Your task to perform on an android device: remove spam from my inbox in the gmail app Image 0: 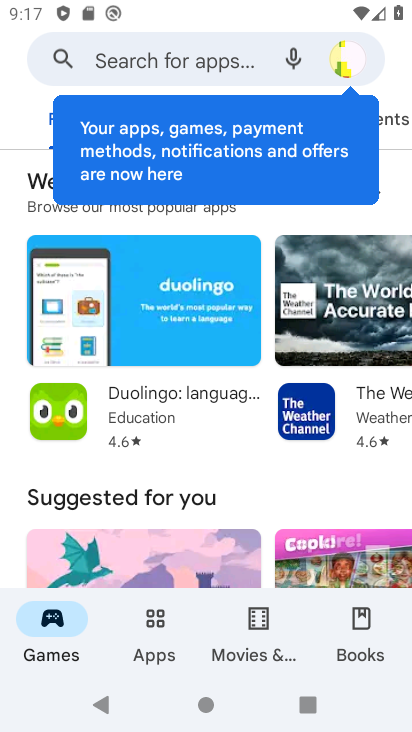
Step 0: press home button
Your task to perform on an android device: remove spam from my inbox in the gmail app Image 1: 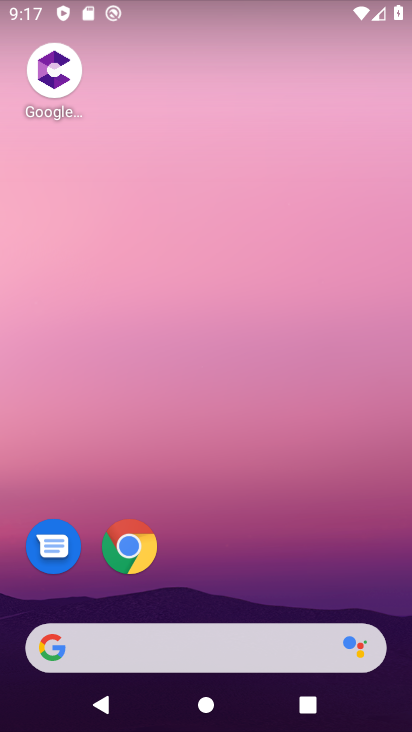
Step 1: drag from (208, 615) to (253, 76)
Your task to perform on an android device: remove spam from my inbox in the gmail app Image 2: 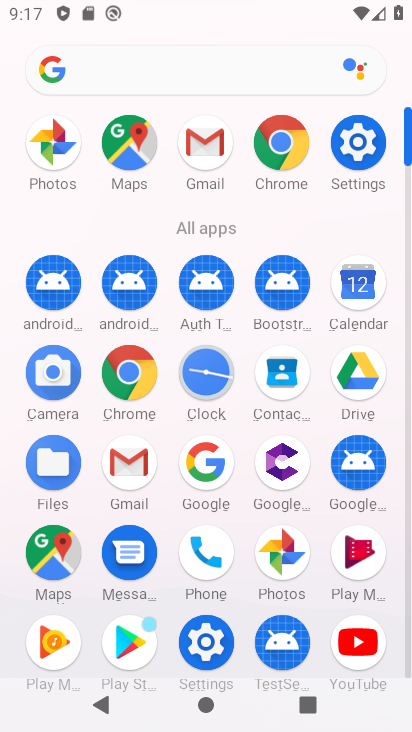
Step 2: click (135, 458)
Your task to perform on an android device: remove spam from my inbox in the gmail app Image 3: 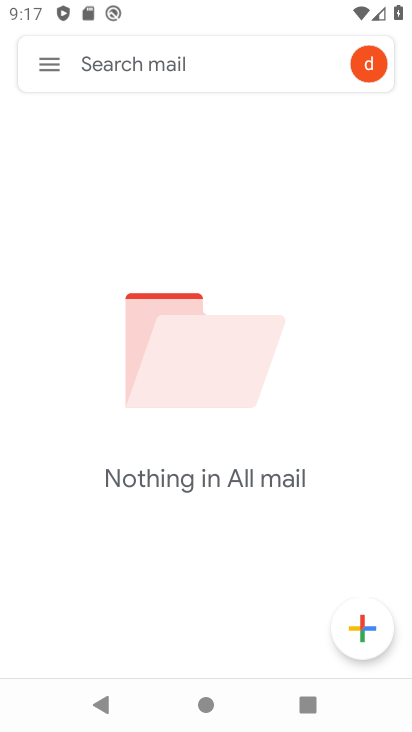
Step 3: click (56, 50)
Your task to perform on an android device: remove spam from my inbox in the gmail app Image 4: 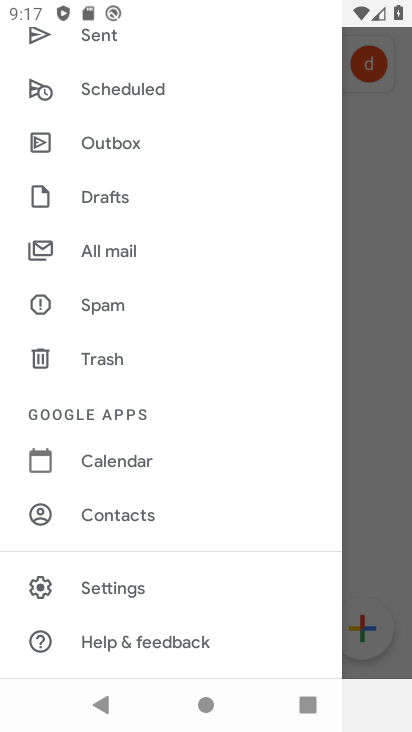
Step 4: click (168, 312)
Your task to perform on an android device: remove spam from my inbox in the gmail app Image 5: 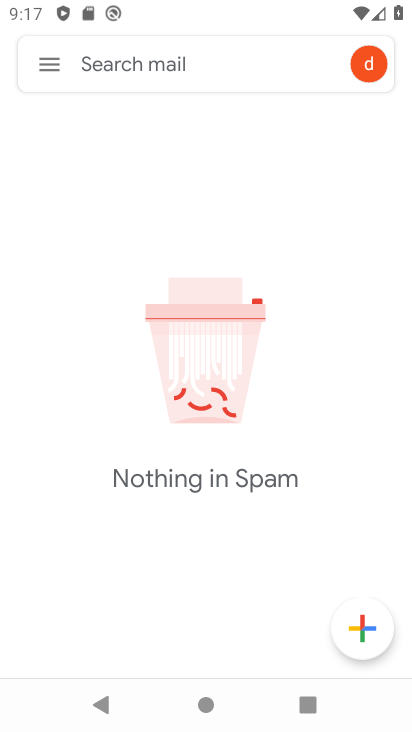
Step 5: task complete